Your task to perform on an android device: Search for pizza restaurants on Maps Image 0: 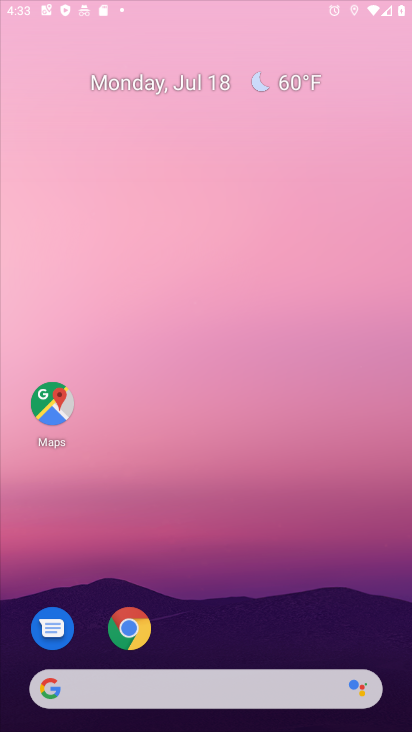
Step 0: click (182, 6)
Your task to perform on an android device: Search for pizza restaurants on Maps Image 1: 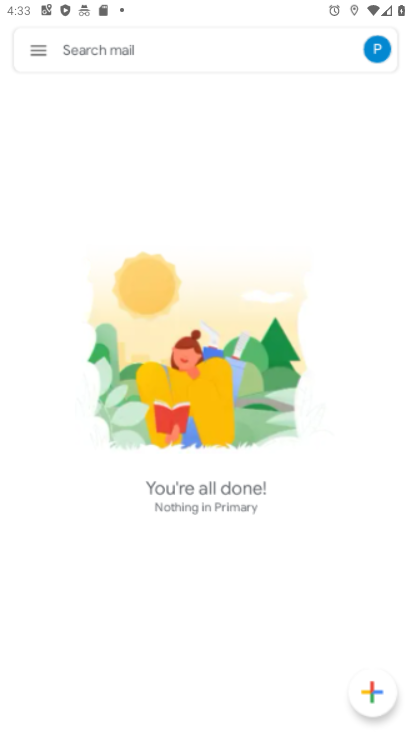
Step 1: drag from (182, 539) to (164, 0)
Your task to perform on an android device: Search for pizza restaurants on Maps Image 2: 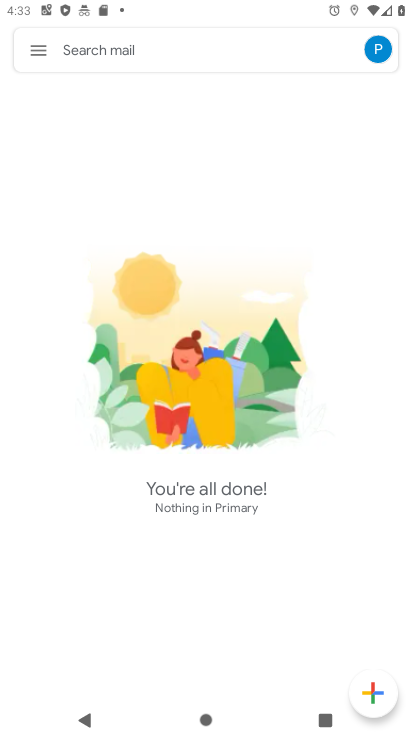
Step 2: press back button
Your task to perform on an android device: Search for pizza restaurants on Maps Image 3: 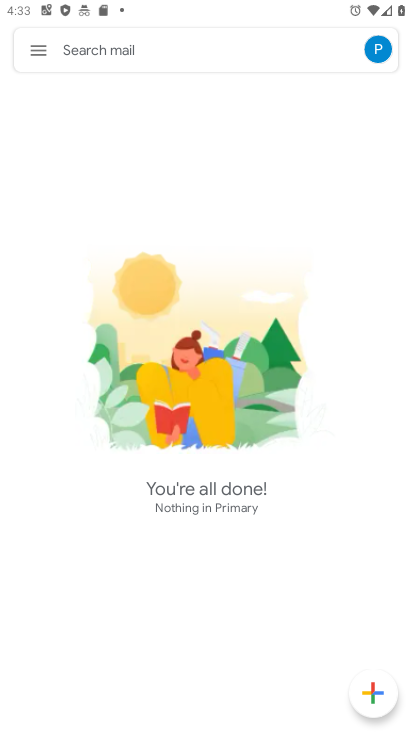
Step 3: press back button
Your task to perform on an android device: Search for pizza restaurants on Maps Image 4: 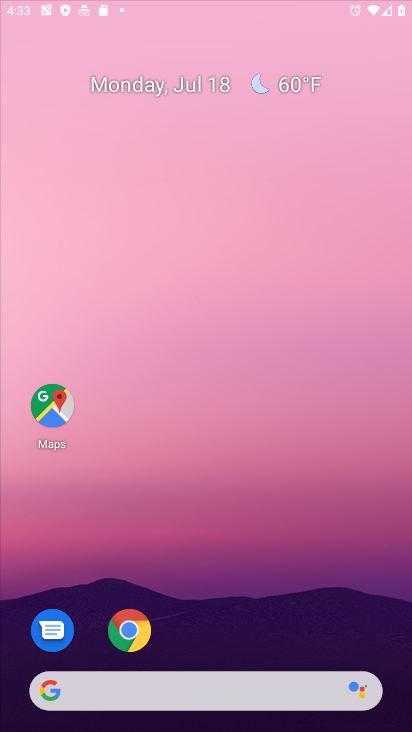
Step 4: press home button
Your task to perform on an android device: Search for pizza restaurants on Maps Image 5: 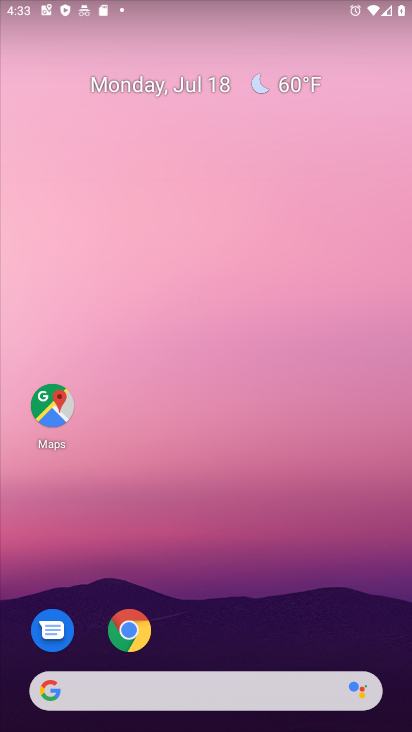
Step 5: drag from (231, 661) to (213, 140)
Your task to perform on an android device: Search for pizza restaurants on Maps Image 6: 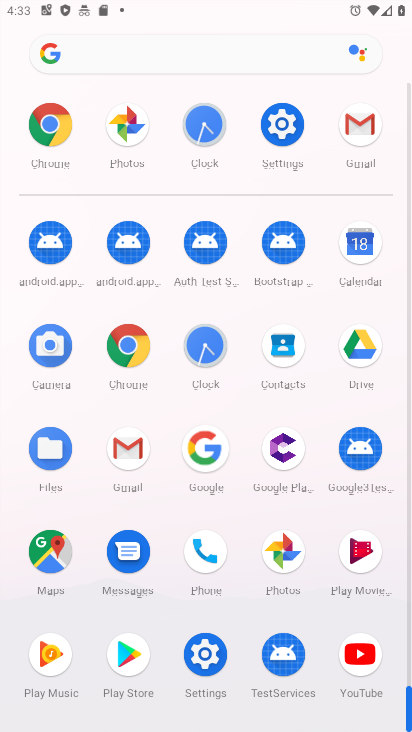
Step 6: click (52, 556)
Your task to perform on an android device: Search for pizza restaurants on Maps Image 7: 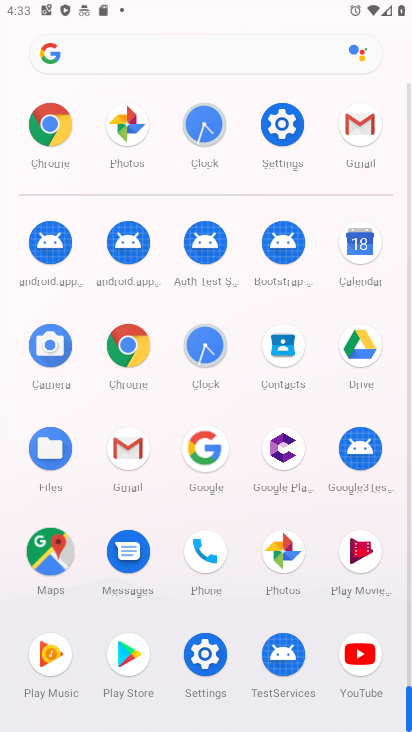
Step 7: click (49, 556)
Your task to perform on an android device: Search for pizza restaurants on Maps Image 8: 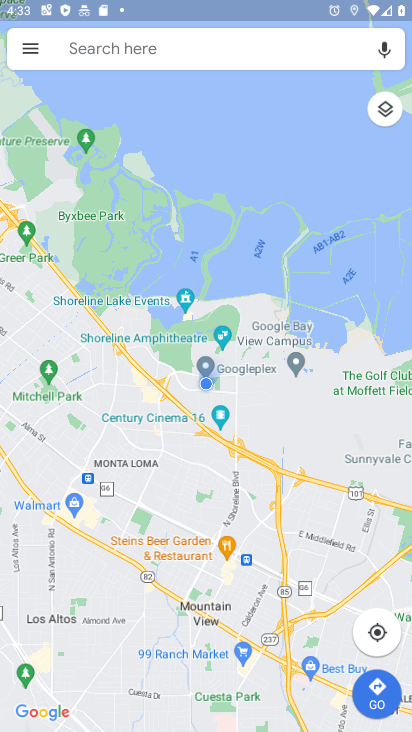
Step 8: click (82, 43)
Your task to perform on an android device: Search for pizza restaurants on Maps Image 9: 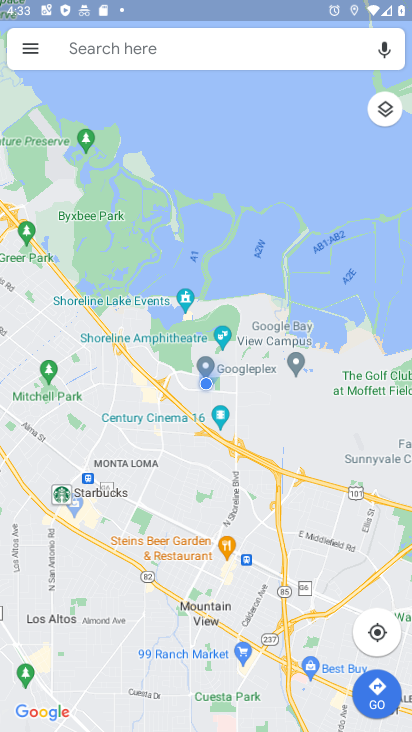
Step 9: click (88, 47)
Your task to perform on an android device: Search for pizza restaurants on Maps Image 10: 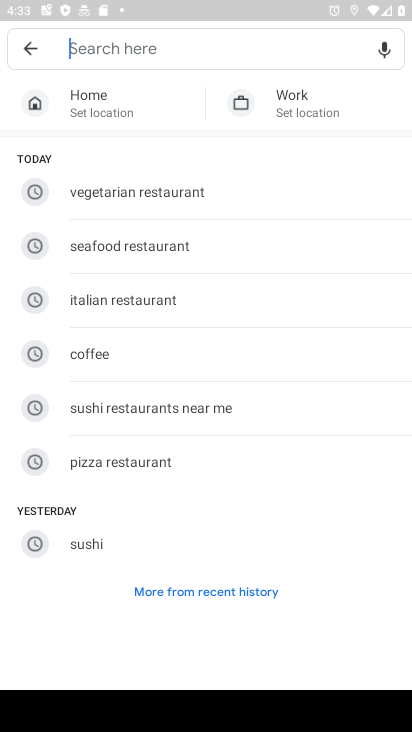
Step 10: click (132, 465)
Your task to perform on an android device: Search for pizza restaurants on Maps Image 11: 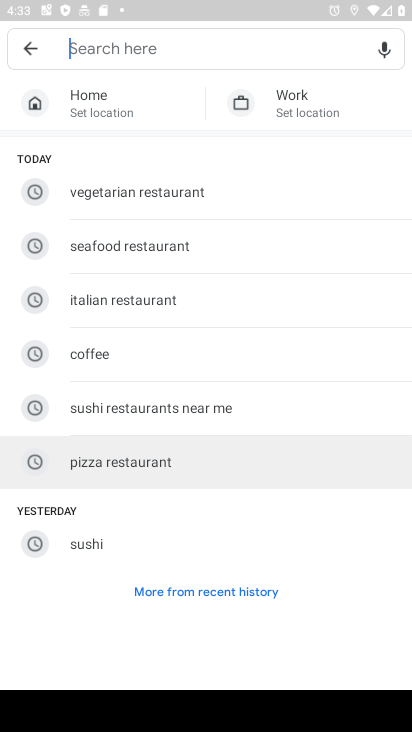
Step 11: click (131, 466)
Your task to perform on an android device: Search for pizza restaurants on Maps Image 12: 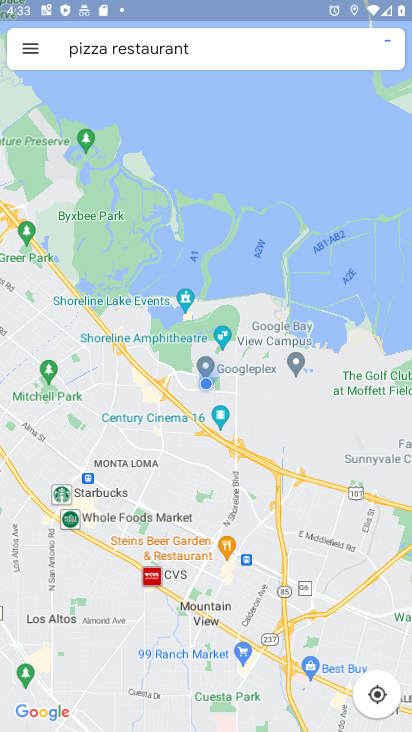
Step 12: task complete